Your task to perform on an android device: Open Wikipedia Image 0: 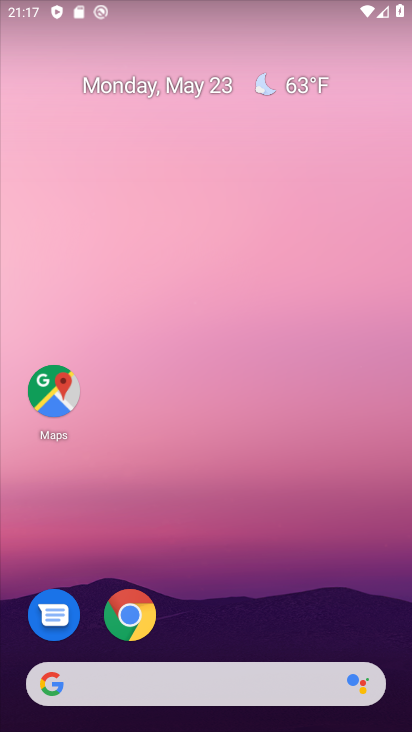
Step 0: drag from (239, 647) to (233, 104)
Your task to perform on an android device: Open Wikipedia Image 1: 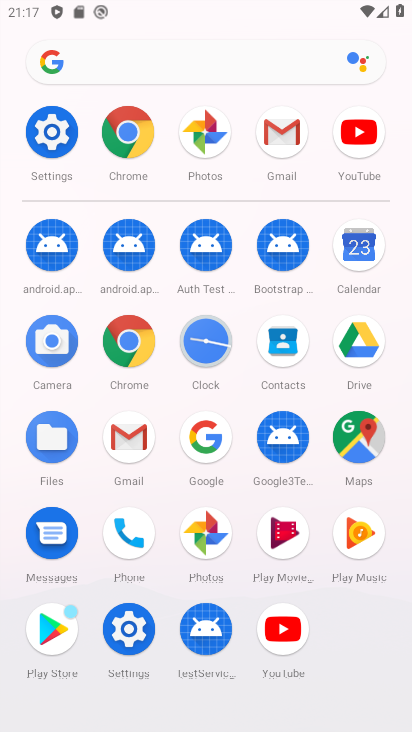
Step 1: click (125, 131)
Your task to perform on an android device: Open Wikipedia Image 2: 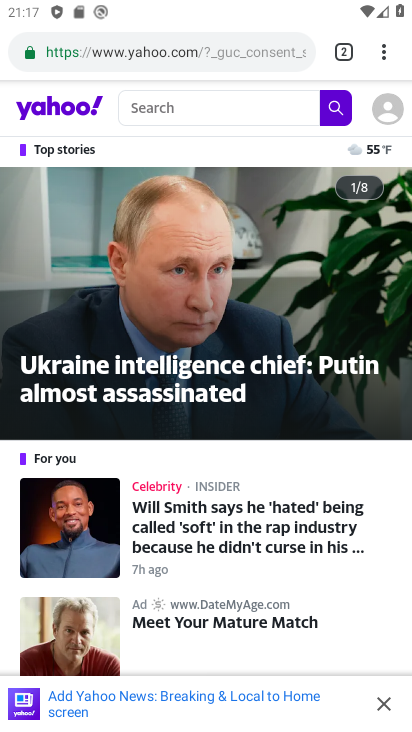
Step 2: press back button
Your task to perform on an android device: Open Wikipedia Image 3: 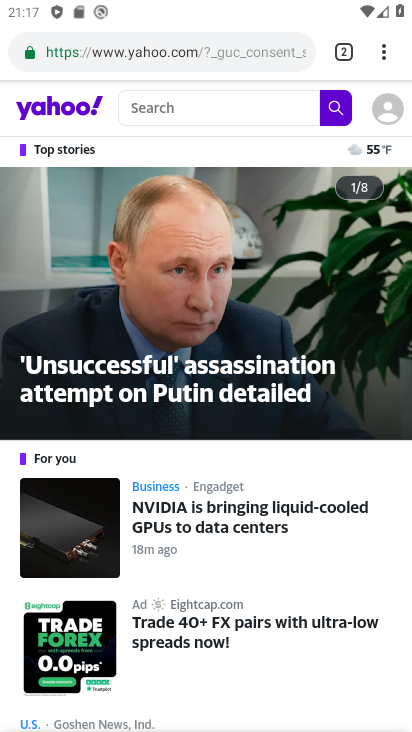
Step 3: press back button
Your task to perform on an android device: Open Wikipedia Image 4: 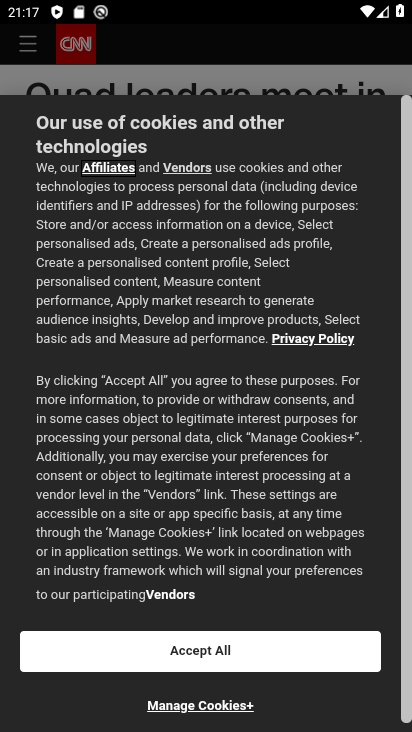
Step 4: press back button
Your task to perform on an android device: Open Wikipedia Image 5: 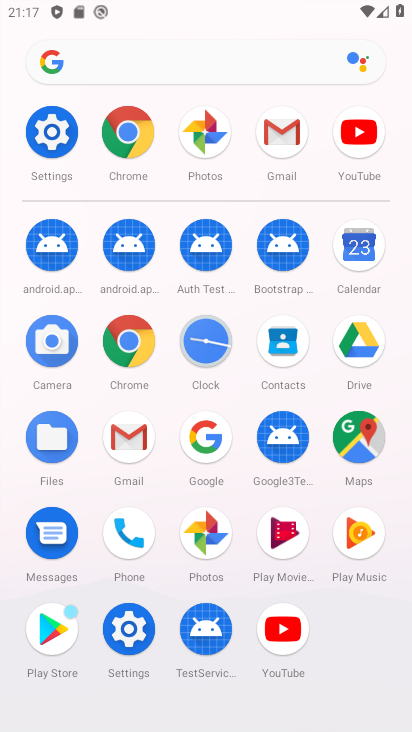
Step 5: click (127, 123)
Your task to perform on an android device: Open Wikipedia Image 6: 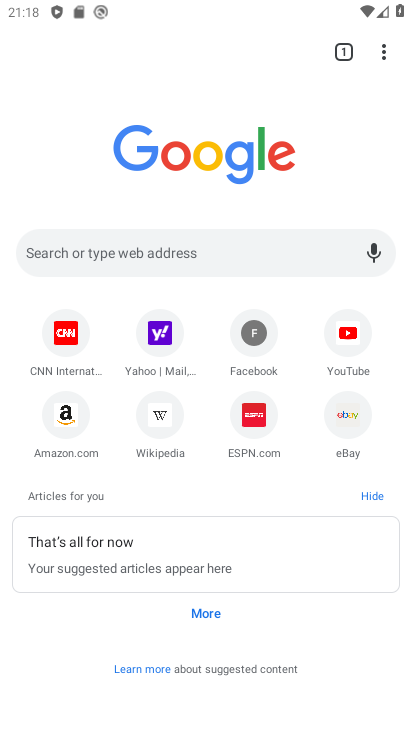
Step 6: click (170, 417)
Your task to perform on an android device: Open Wikipedia Image 7: 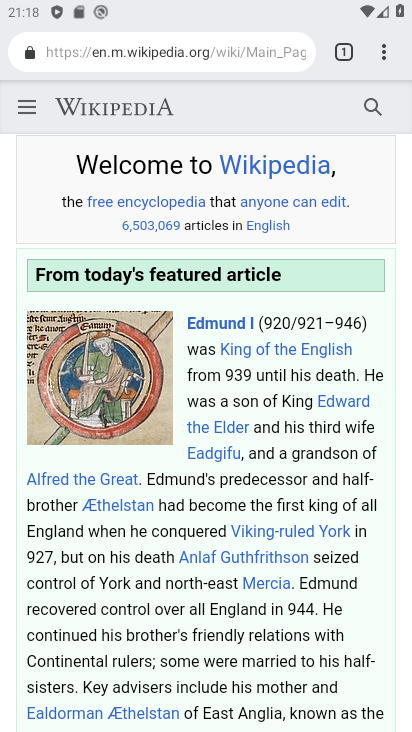
Step 7: task complete